Your task to perform on an android device: Open accessibility settings Image 0: 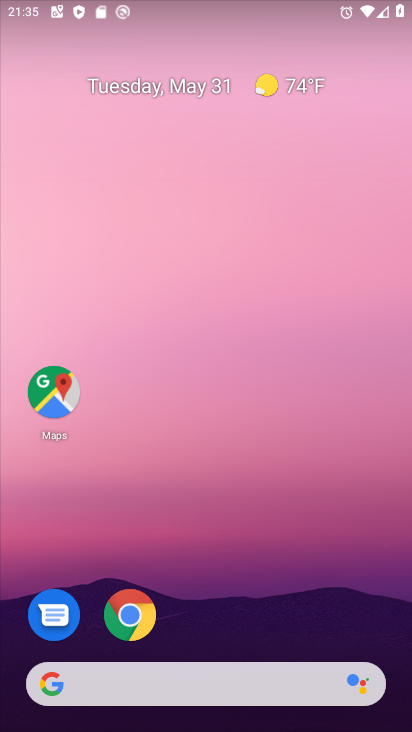
Step 0: drag from (215, 642) to (216, 165)
Your task to perform on an android device: Open accessibility settings Image 1: 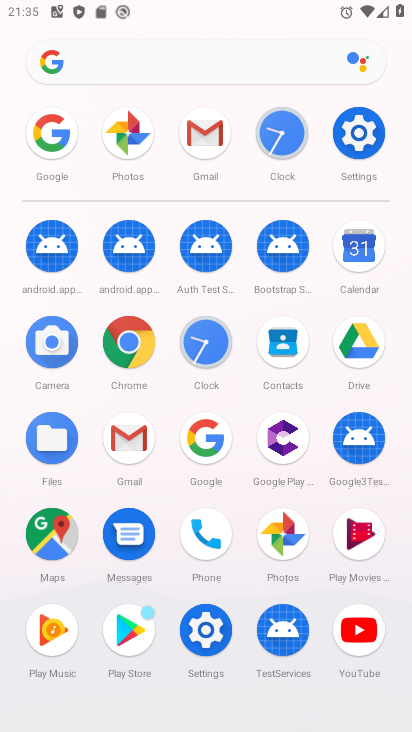
Step 1: click (341, 137)
Your task to perform on an android device: Open accessibility settings Image 2: 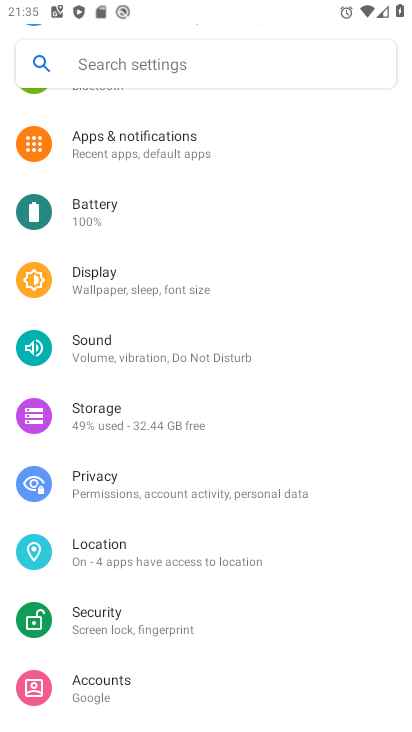
Step 2: drag from (225, 624) to (212, 220)
Your task to perform on an android device: Open accessibility settings Image 3: 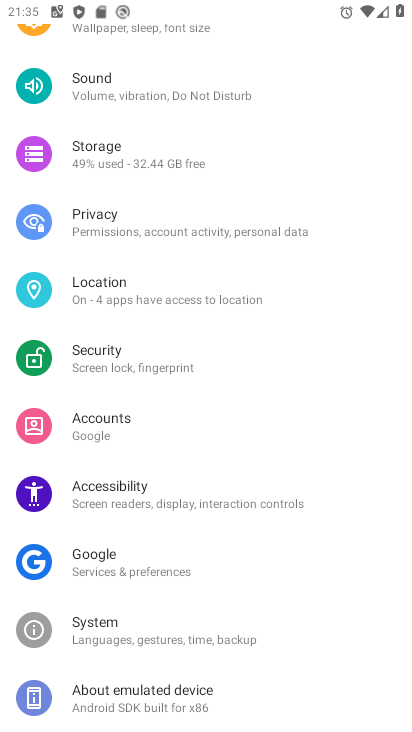
Step 3: drag from (176, 554) to (208, 223)
Your task to perform on an android device: Open accessibility settings Image 4: 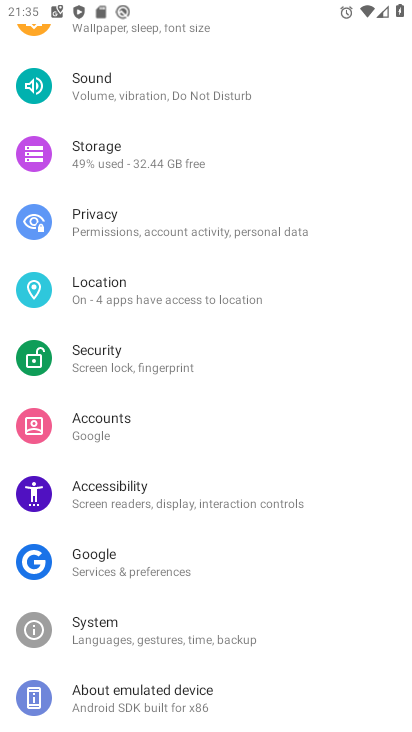
Step 4: drag from (236, 643) to (237, 293)
Your task to perform on an android device: Open accessibility settings Image 5: 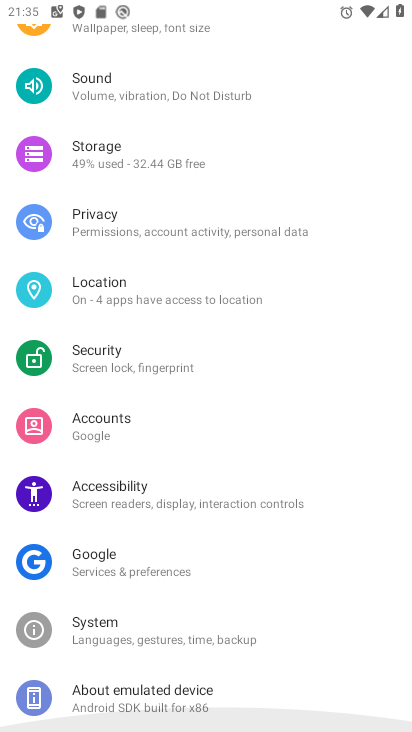
Step 5: drag from (244, 266) to (240, 562)
Your task to perform on an android device: Open accessibility settings Image 6: 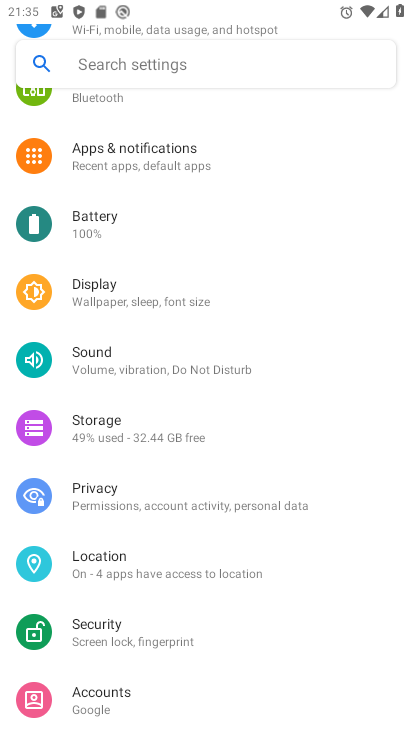
Step 6: drag from (209, 185) to (223, 395)
Your task to perform on an android device: Open accessibility settings Image 7: 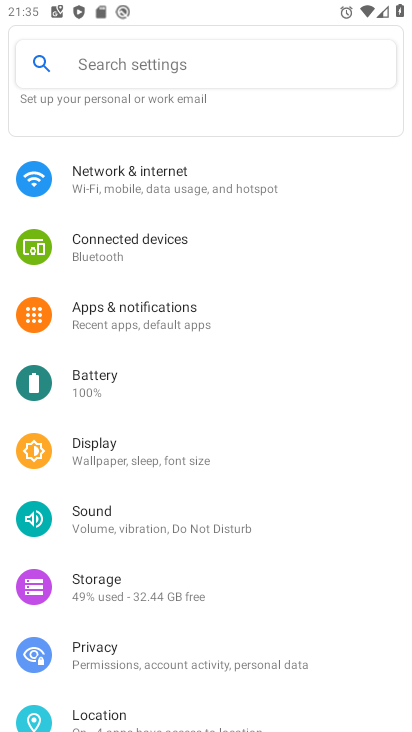
Step 7: drag from (216, 330) to (263, 284)
Your task to perform on an android device: Open accessibility settings Image 8: 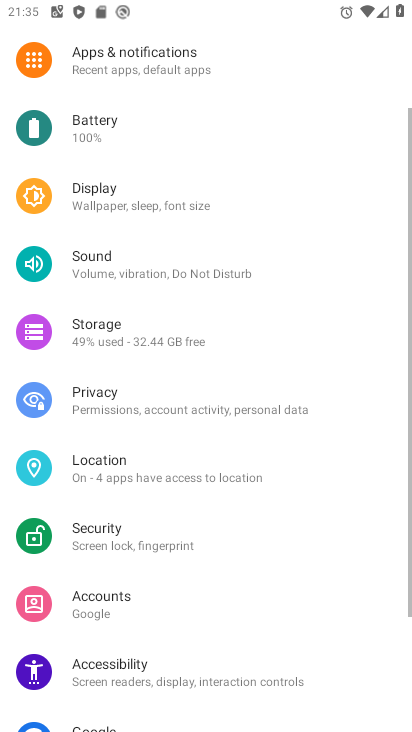
Step 8: drag from (265, 557) to (285, 232)
Your task to perform on an android device: Open accessibility settings Image 9: 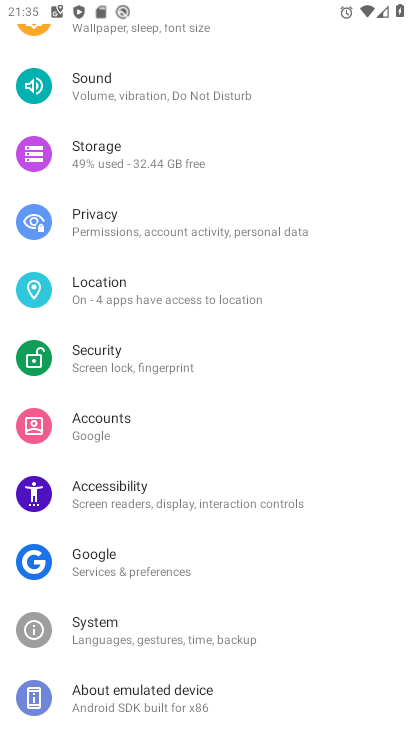
Step 9: click (175, 502)
Your task to perform on an android device: Open accessibility settings Image 10: 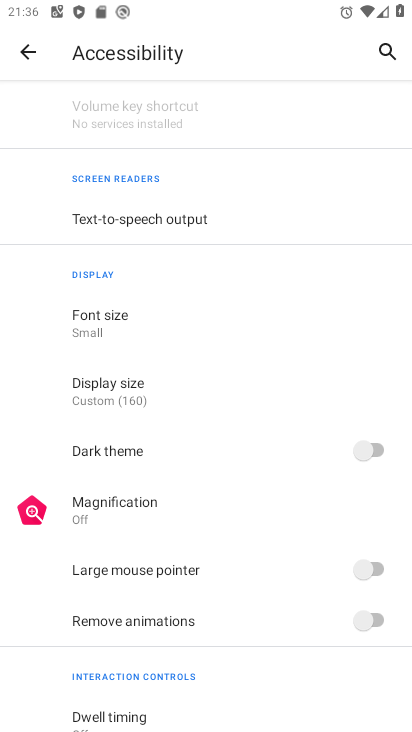
Step 10: task complete